Your task to perform on an android device: find photos in the google photos app Image 0: 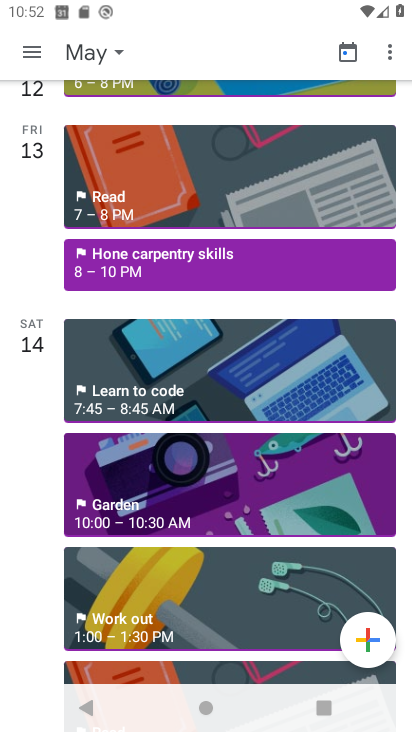
Step 0: press home button
Your task to perform on an android device: find photos in the google photos app Image 1: 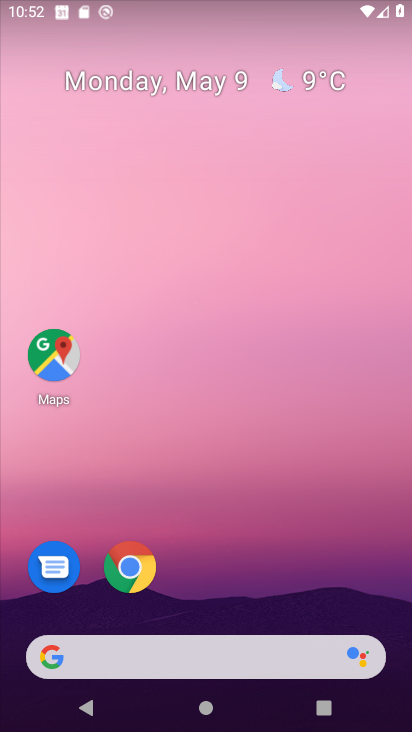
Step 1: drag from (204, 612) to (220, 140)
Your task to perform on an android device: find photos in the google photos app Image 2: 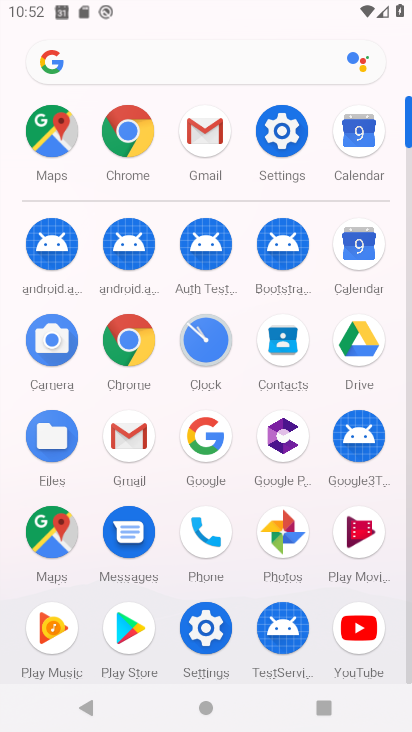
Step 2: click (280, 525)
Your task to perform on an android device: find photos in the google photos app Image 3: 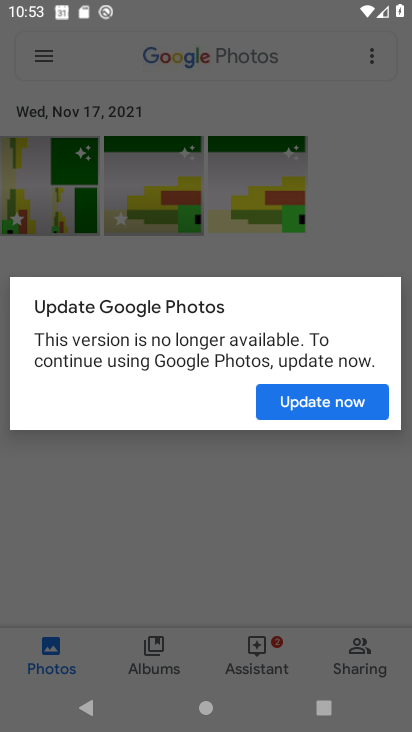
Step 3: click (317, 409)
Your task to perform on an android device: find photos in the google photos app Image 4: 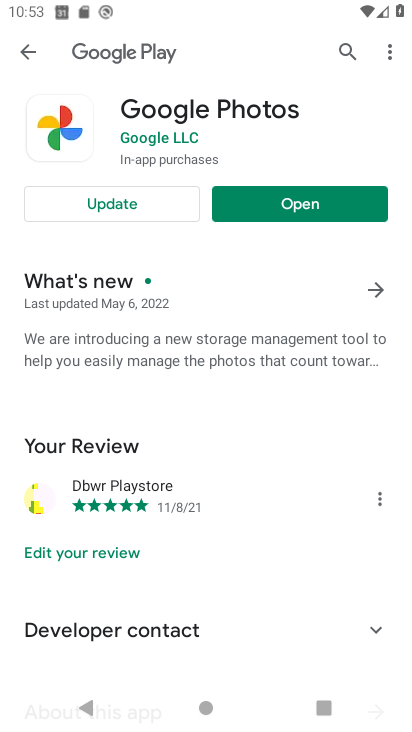
Step 4: click (111, 199)
Your task to perform on an android device: find photos in the google photos app Image 5: 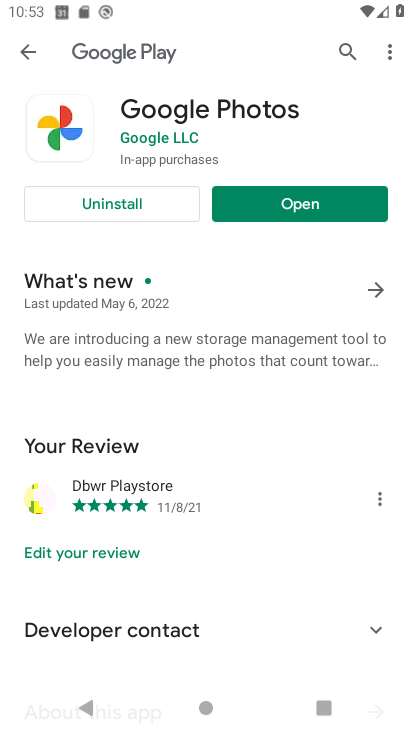
Step 5: click (303, 197)
Your task to perform on an android device: find photos in the google photos app Image 6: 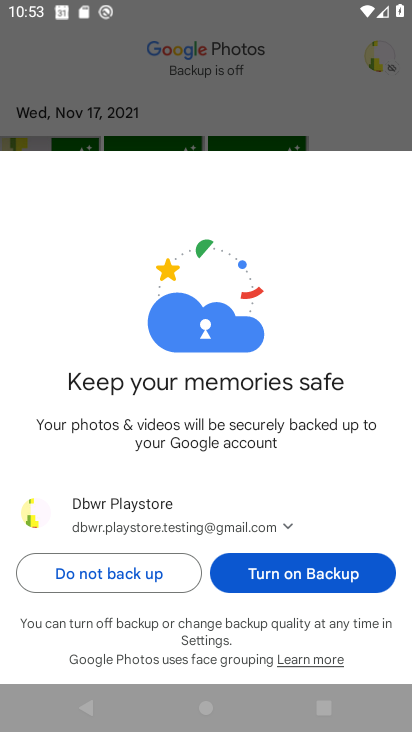
Step 6: click (288, 577)
Your task to perform on an android device: find photos in the google photos app Image 7: 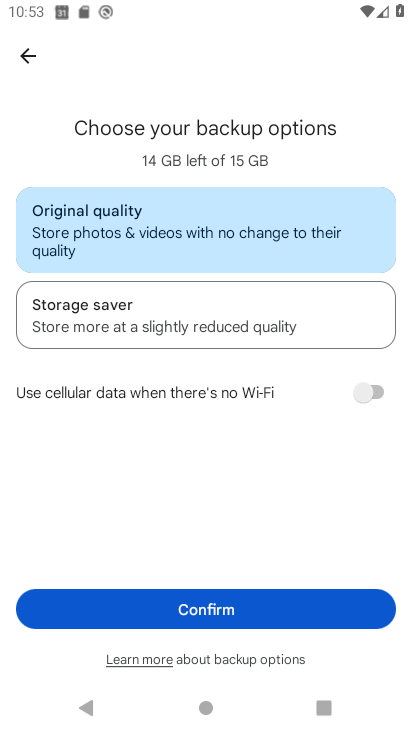
Step 7: click (148, 306)
Your task to perform on an android device: find photos in the google photos app Image 8: 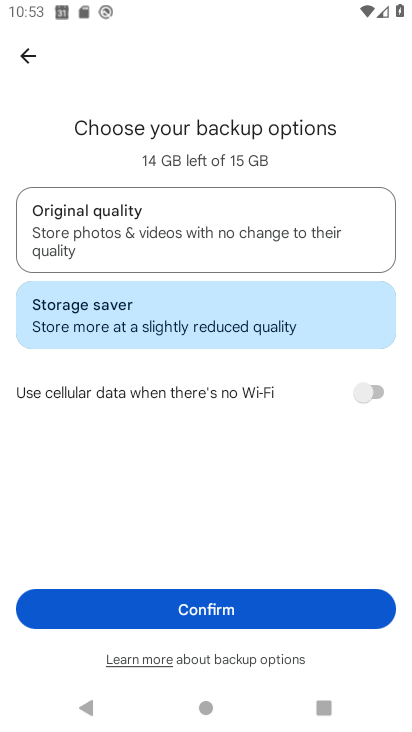
Step 8: click (215, 605)
Your task to perform on an android device: find photos in the google photos app Image 9: 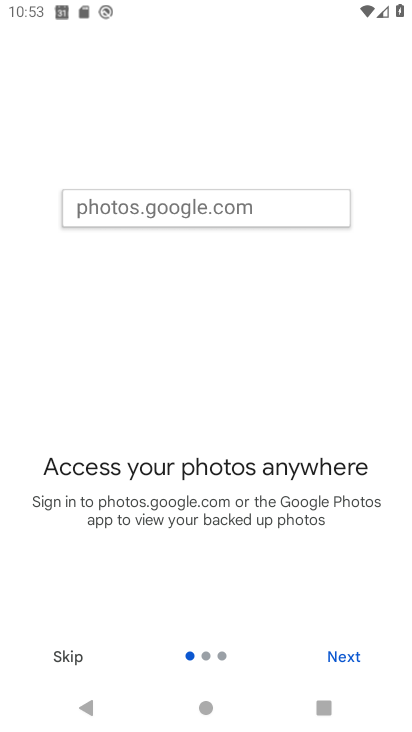
Step 9: click (344, 651)
Your task to perform on an android device: find photos in the google photos app Image 10: 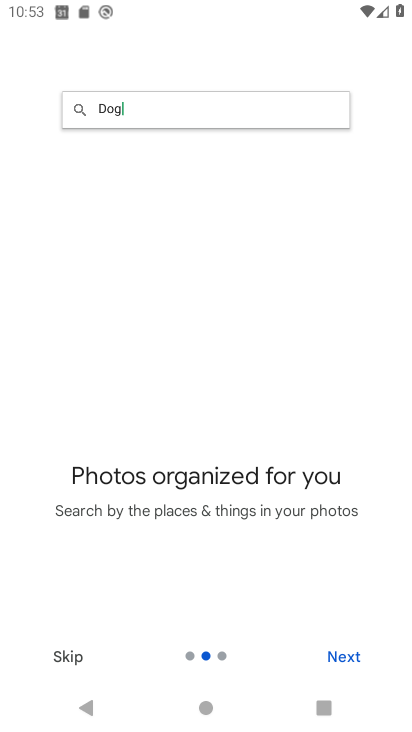
Step 10: click (344, 651)
Your task to perform on an android device: find photos in the google photos app Image 11: 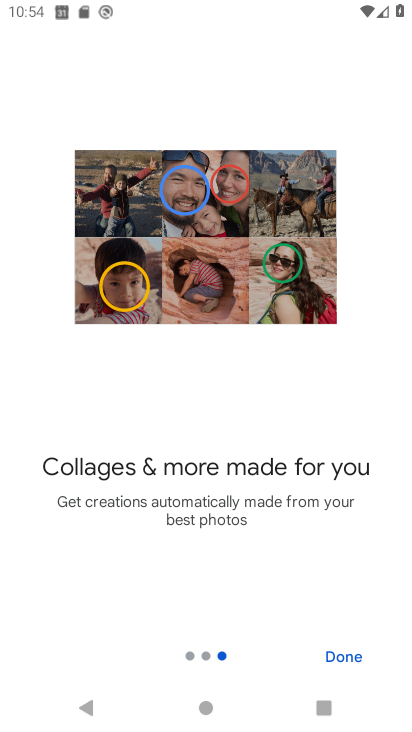
Step 11: click (344, 651)
Your task to perform on an android device: find photos in the google photos app Image 12: 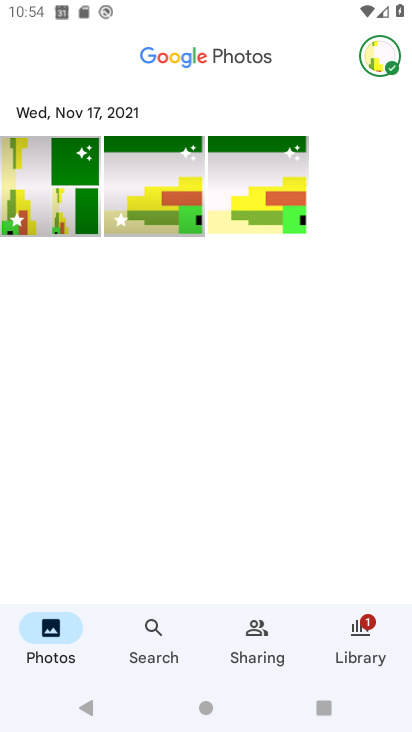
Step 12: task complete